Your task to perform on an android device: toggle sleep mode Image 0: 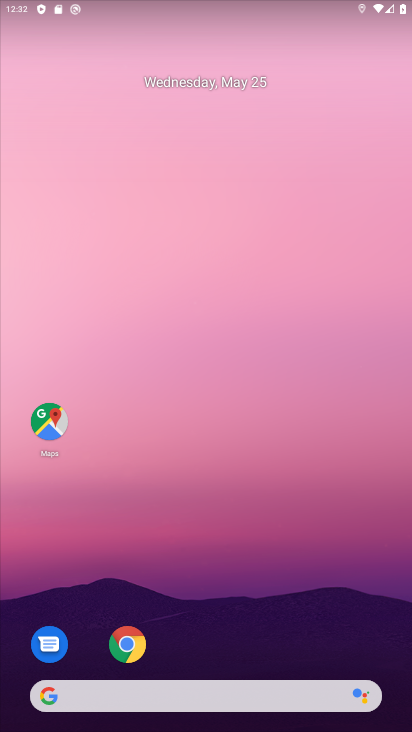
Step 0: drag from (209, 550) to (134, 234)
Your task to perform on an android device: toggle sleep mode Image 1: 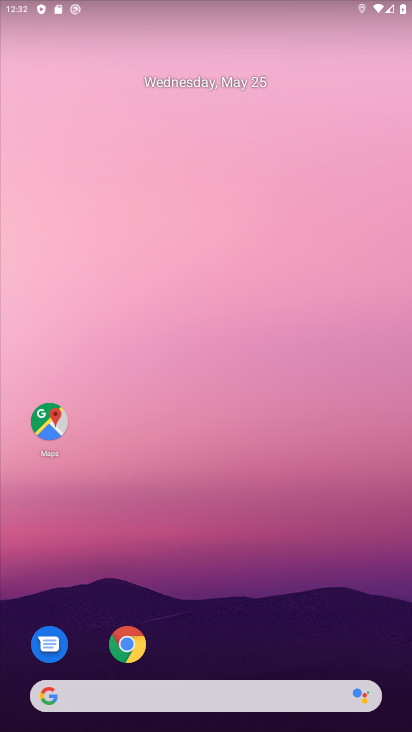
Step 1: drag from (196, 604) to (151, 54)
Your task to perform on an android device: toggle sleep mode Image 2: 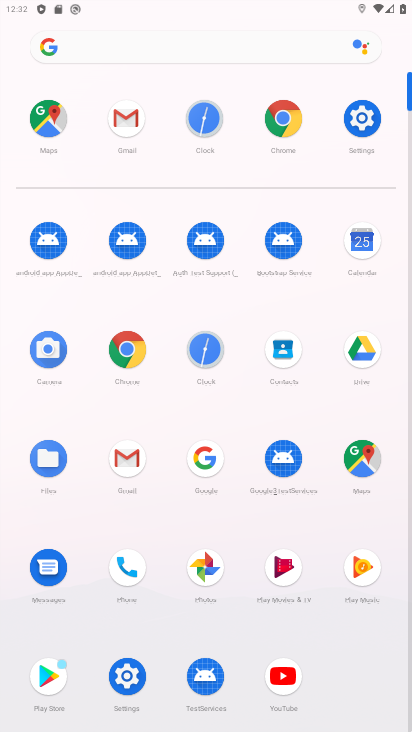
Step 2: click (363, 120)
Your task to perform on an android device: toggle sleep mode Image 3: 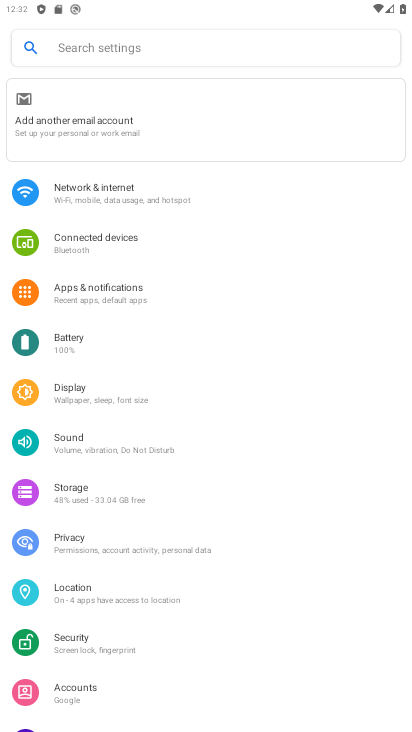
Step 3: click (68, 383)
Your task to perform on an android device: toggle sleep mode Image 4: 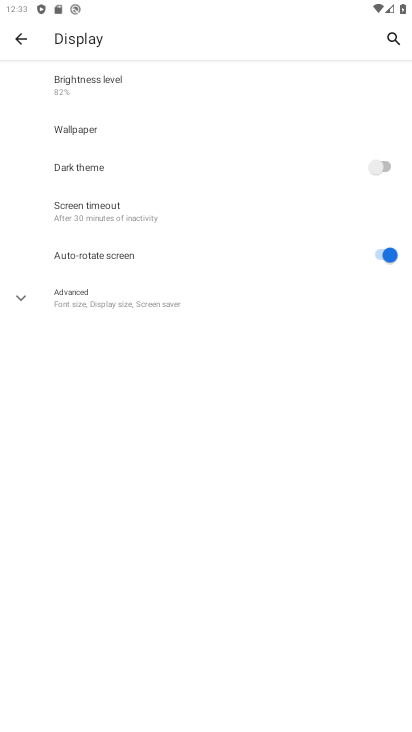
Step 4: click (16, 35)
Your task to perform on an android device: toggle sleep mode Image 5: 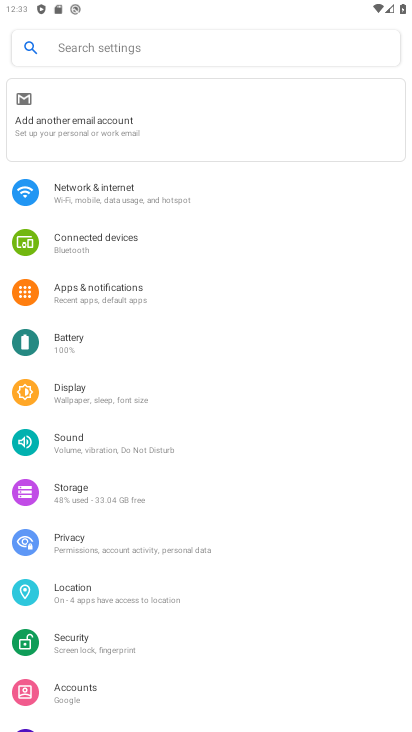
Step 5: click (79, 383)
Your task to perform on an android device: toggle sleep mode Image 6: 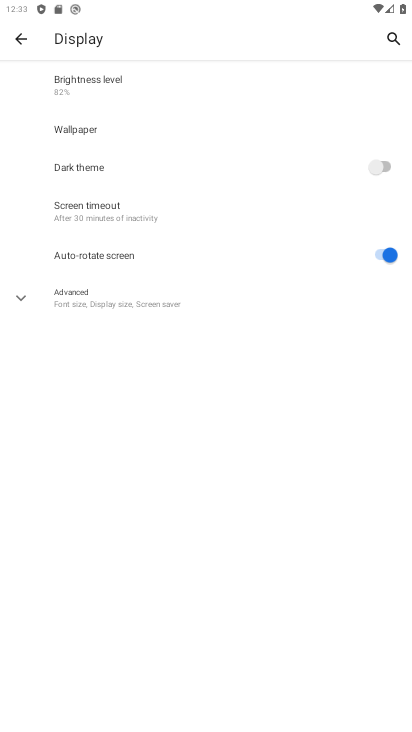
Step 6: task complete